Your task to perform on an android device: turn on notifications settings in the gmail app Image 0: 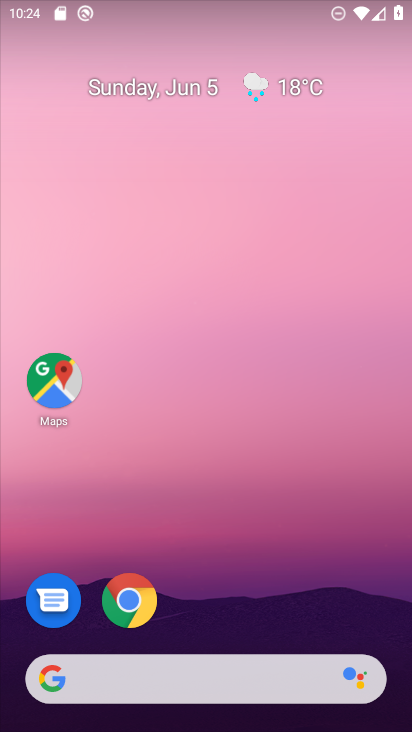
Step 0: drag from (228, 624) to (300, 66)
Your task to perform on an android device: turn on notifications settings in the gmail app Image 1: 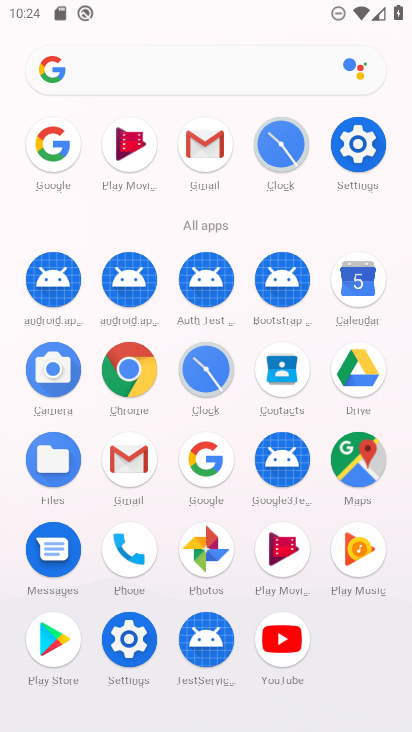
Step 1: click (217, 136)
Your task to perform on an android device: turn on notifications settings in the gmail app Image 2: 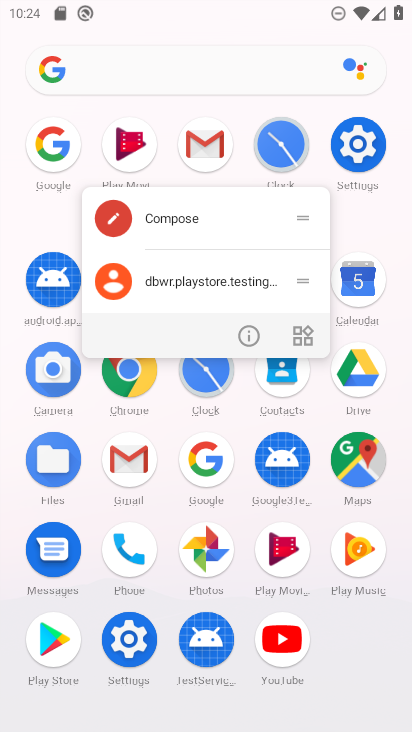
Step 2: click (253, 338)
Your task to perform on an android device: turn on notifications settings in the gmail app Image 3: 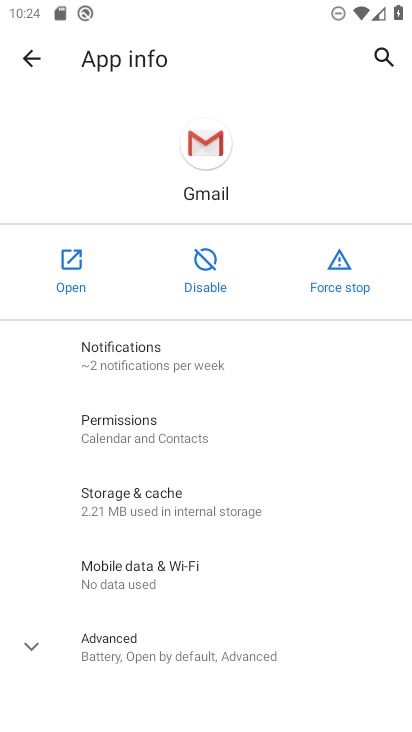
Step 3: click (125, 373)
Your task to perform on an android device: turn on notifications settings in the gmail app Image 4: 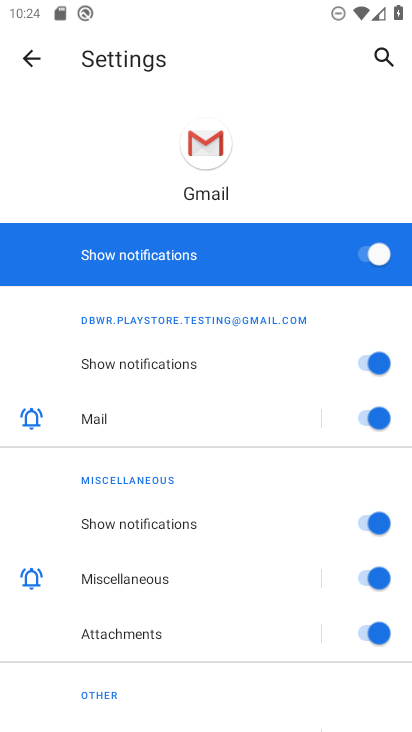
Step 4: task complete